Your task to perform on an android device: open chrome privacy settings Image 0: 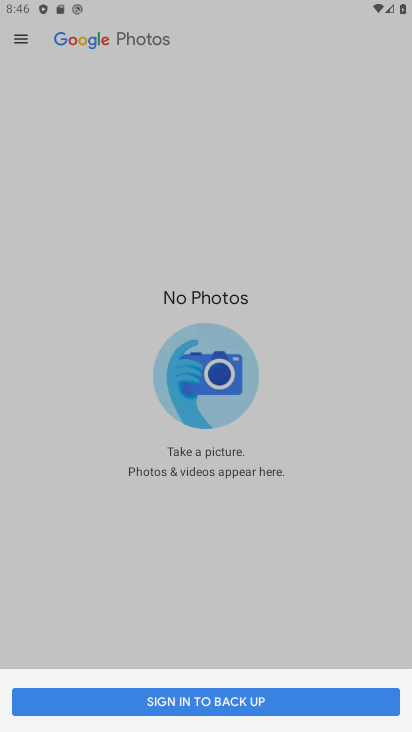
Step 0: press home button
Your task to perform on an android device: open chrome privacy settings Image 1: 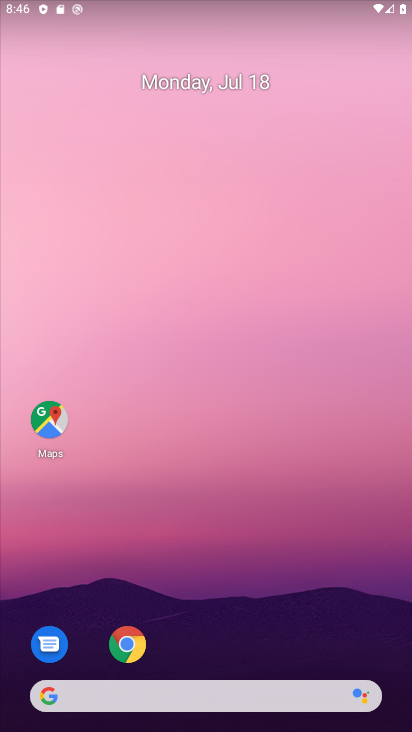
Step 1: click (128, 644)
Your task to perform on an android device: open chrome privacy settings Image 2: 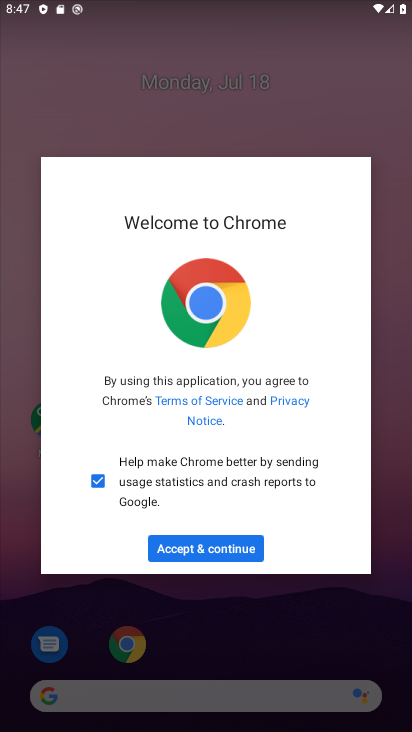
Step 2: click (227, 545)
Your task to perform on an android device: open chrome privacy settings Image 3: 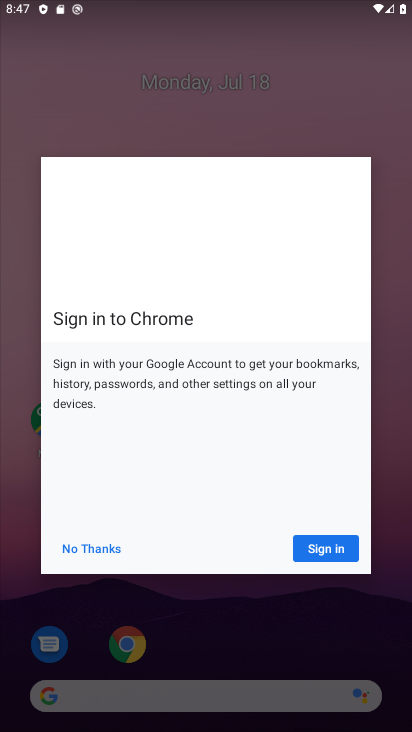
Step 3: click (341, 545)
Your task to perform on an android device: open chrome privacy settings Image 4: 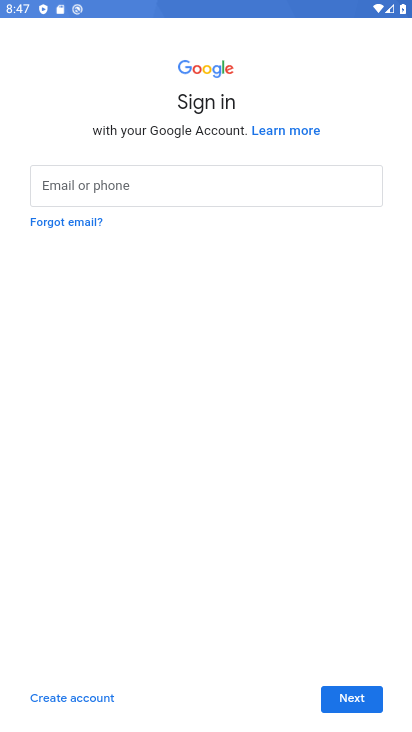
Step 4: task complete